Your task to perform on an android device: Show me popular games on the Play Store Image 0: 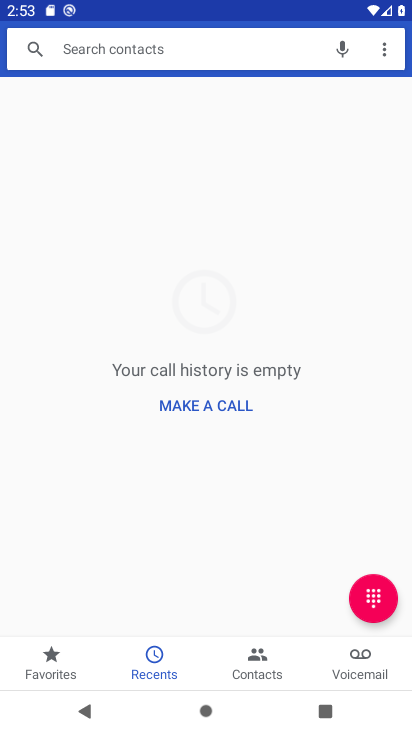
Step 0: press home button
Your task to perform on an android device: Show me popular games on the Play Store Image 1: 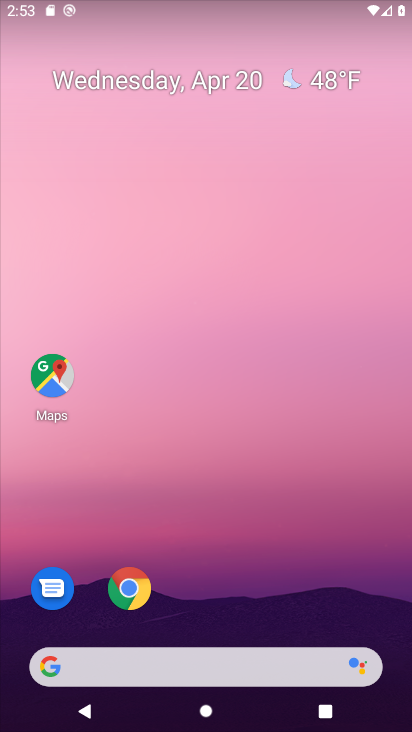
Step 1: drag from (340, 585) to (346, 124)
Your task to perform on an android device: Show me popular games on the Play Store Image 2: 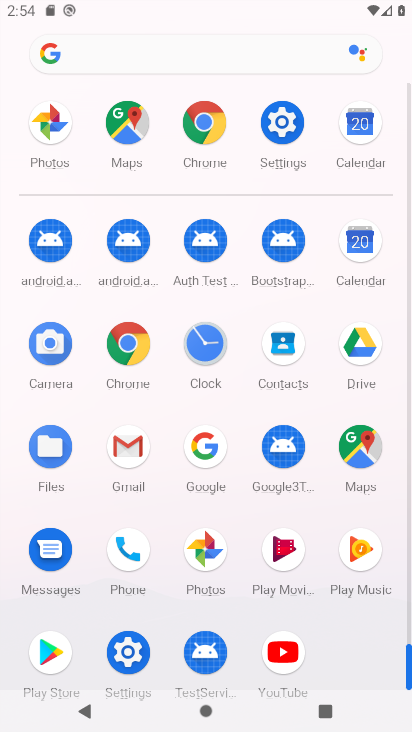
Step 2: click (52, 657)
Your task to perform on an android device: Show me popular games on the Play Store Image 3: 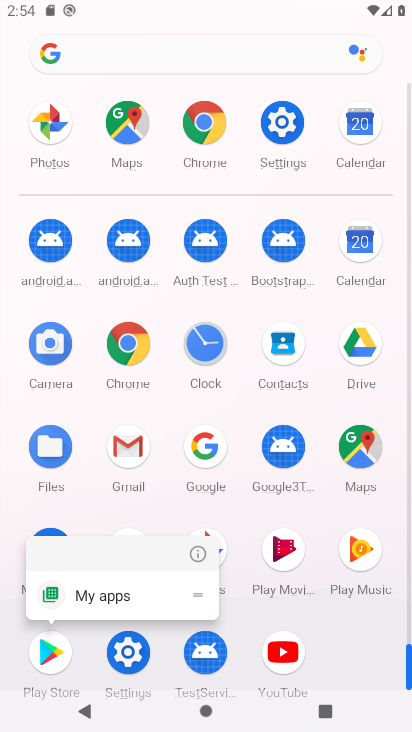
Step 3: click (38, 652)
Your task to perform on an android device: Show me popular games on the Play Store Image 4: 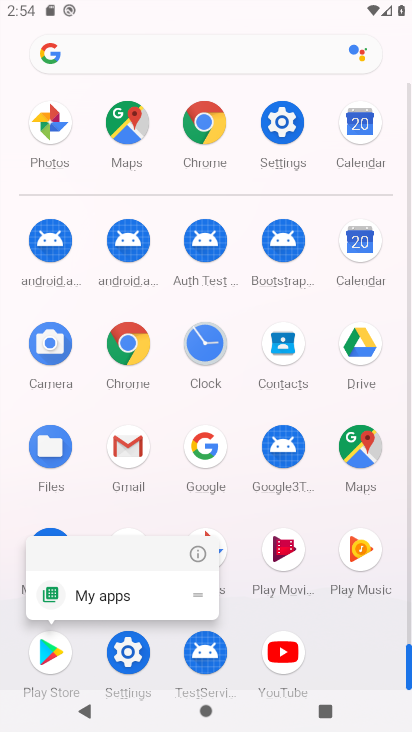
Step 4: click (40, 650)
Your task to perform on an android device: Show me popular games on the Play Store Image 5: 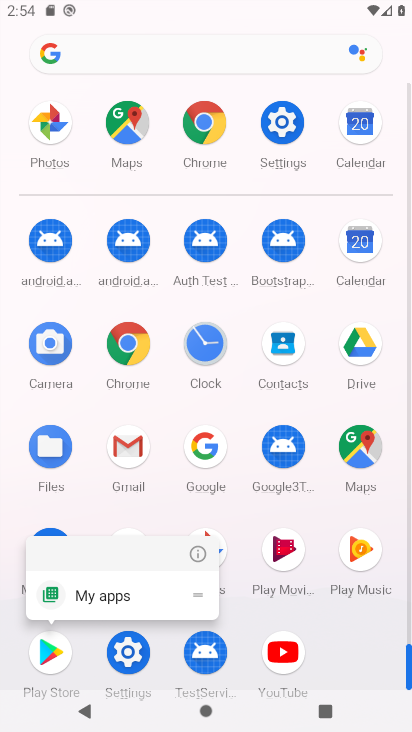
Step 5: drag from (365, 641) to (405, 369)
Your task to perform on an android device: Show me popular games on the Play Store Image 6: 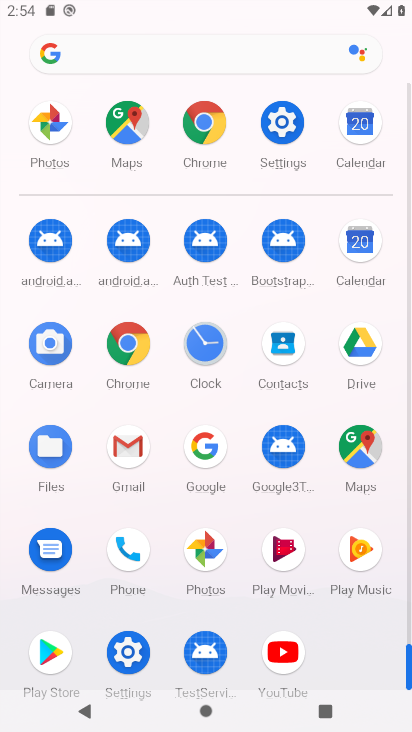
Step 6: click (52, 649)
Your task to perform on an android device: Show me popular games on the Play Store Image 7: 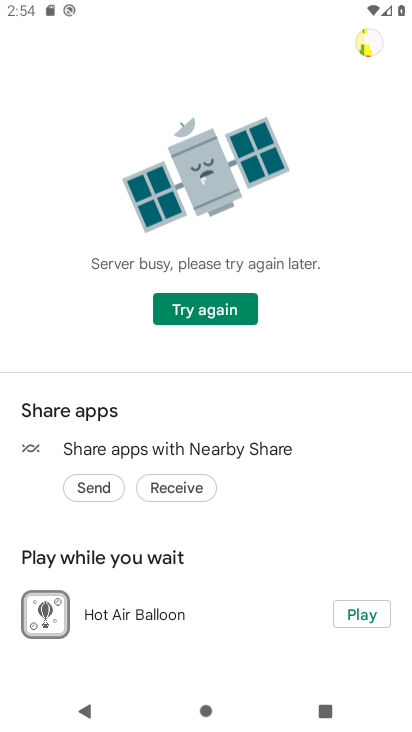
Step 7: task complete